Your task to perform on an android device: Open maps Image 0: 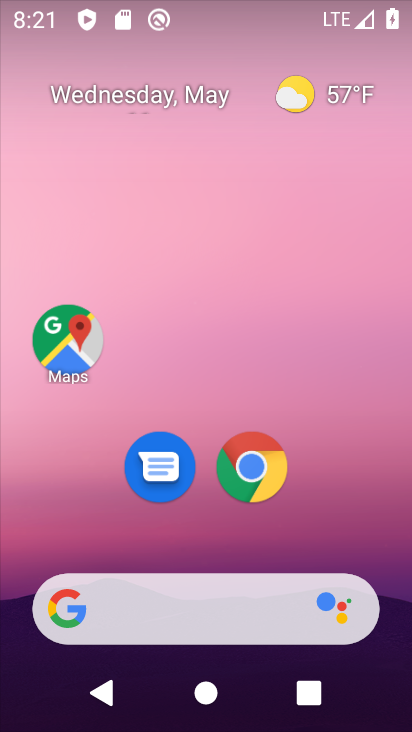
Step 0: drag from (276, 367) to (168, 145)
Your task to perform on an android device: Open maps Image 1: 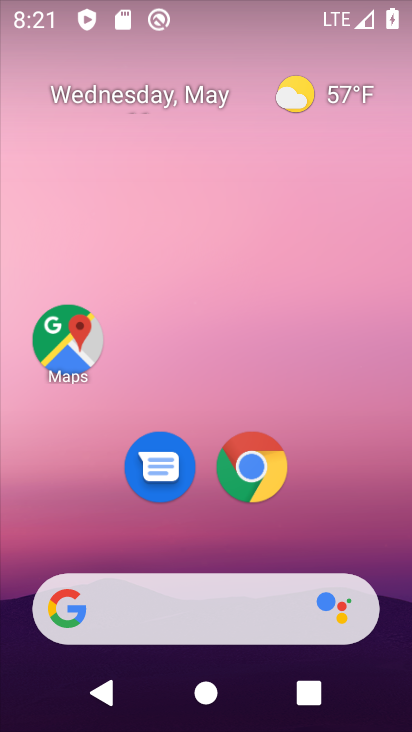
Step 1: drag from (342, 588) to (165, 147)
Your task to perform on an android device: Open maps Image 2: 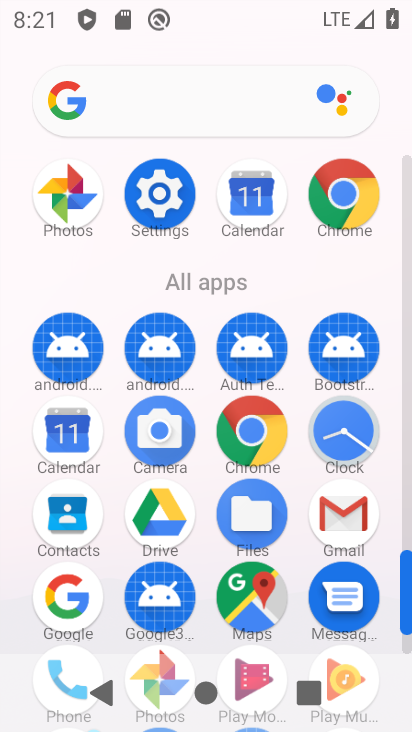
Step 2: click (230, 592)
Your task to perform on an android device: Open maps Image 3: 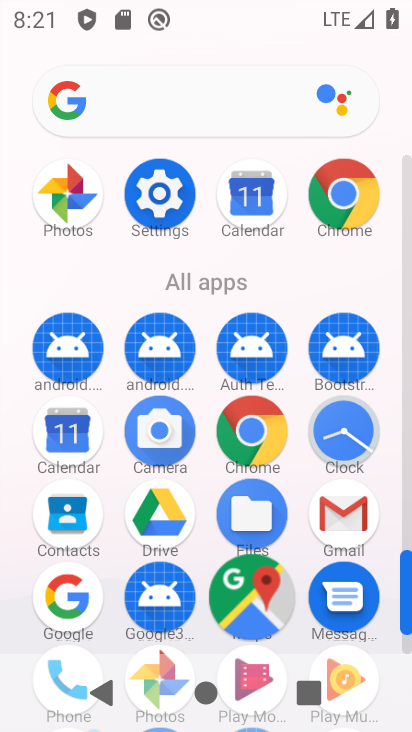
Step 3: click (239, 598)
Your task to perform on an android device: Open maps Image 4: 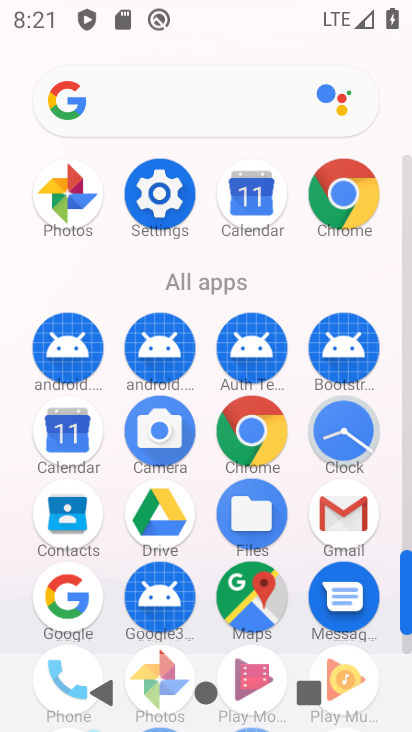
Step 4: click (243, 593)
Your task to perform on an android device: Open maps Image 5: 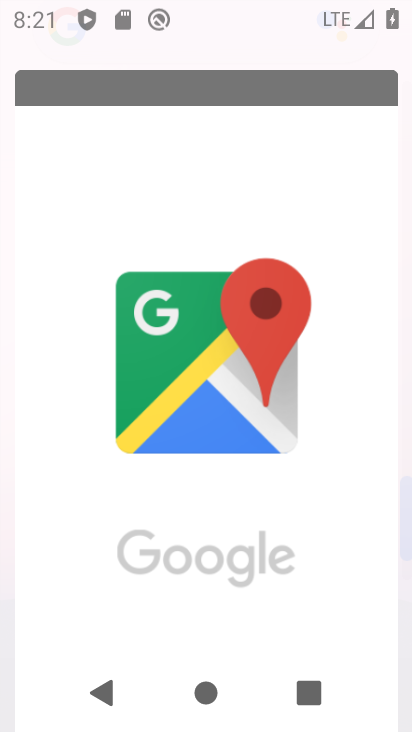
Step 5: click (250, 585)
Your task to perform on an android device: Open maps Image 6: 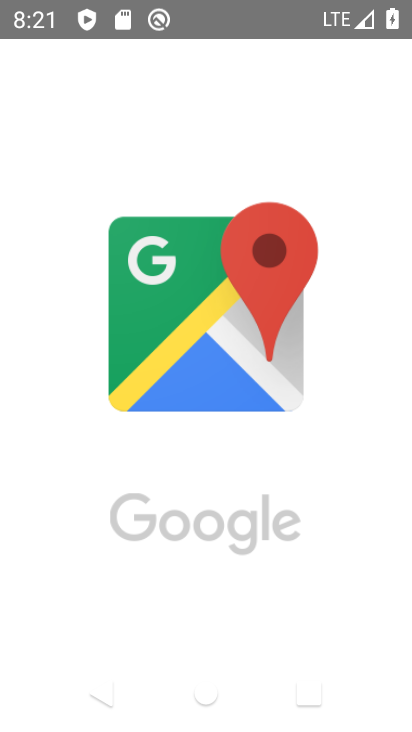
Step 6: click (250, 580)
Your task to perform on an android device: Open maps Image 7: 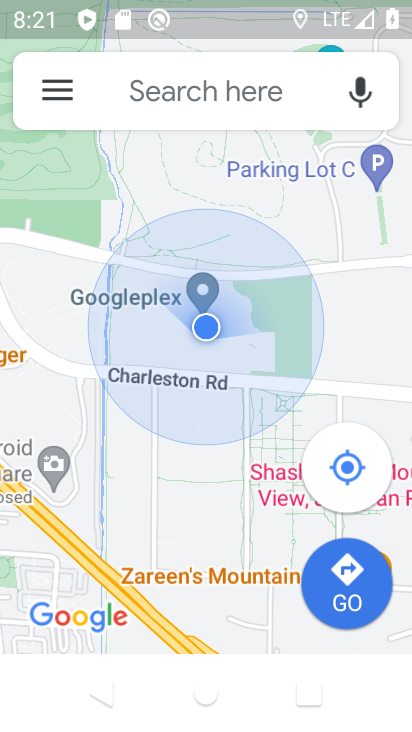
Step 7: click (131, 87)
Your task to perform on an android device: Open maps Image 8: 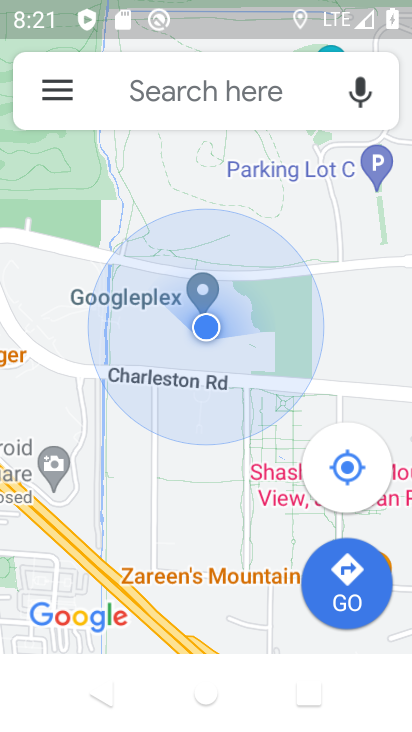
Step 8: click (131, 87)
Your task to perform on an android device: Open maps Image 9: 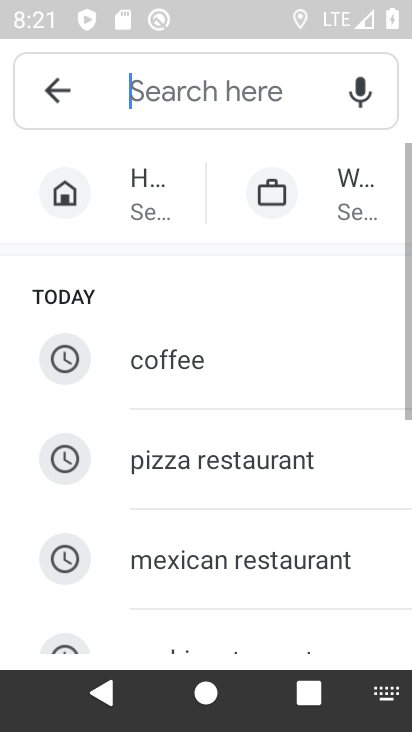
Step 9: click (136, 88)
Your task to perform on an android device: Open maps Image 10: 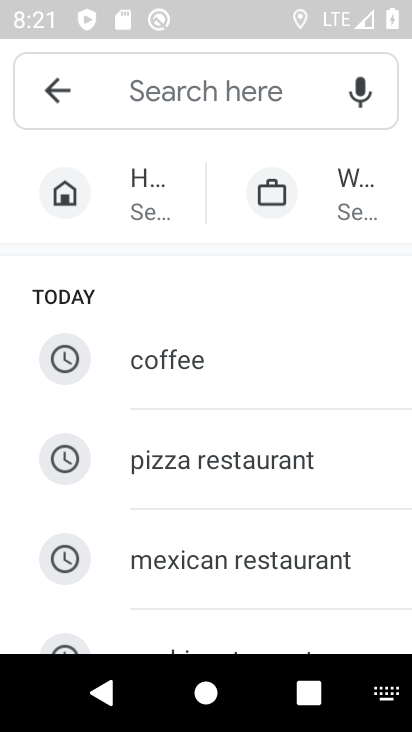
Step 10: click (60, 91)
Your task to perform on an android device: Open maps Image 11: 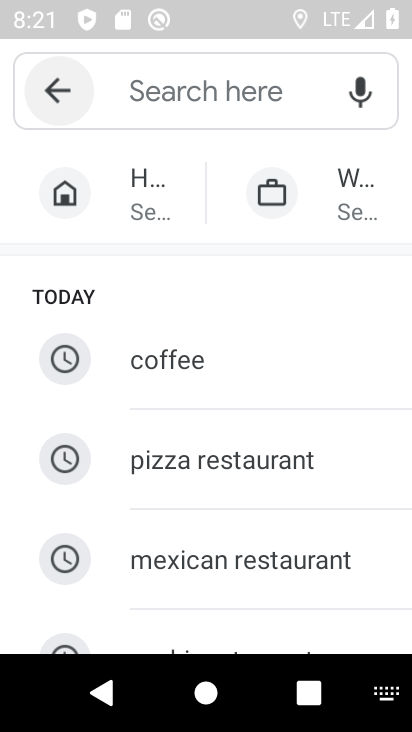
Step 11: click (59, 91)
Your task to perform on an android device: Open maps Image 12: 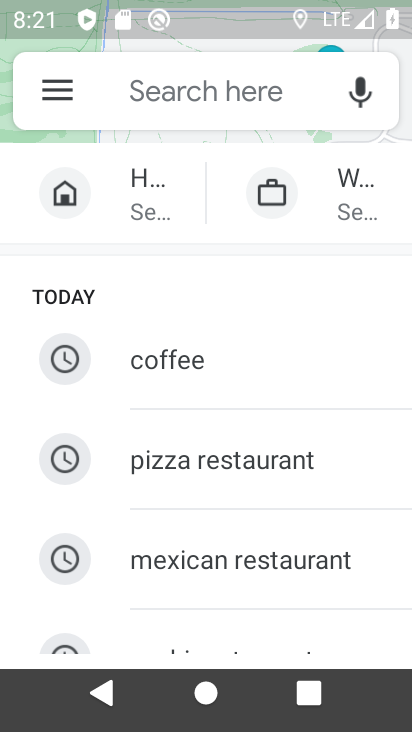
Step 12: click (57, 90)
Your task to perform on an android device: Open maps Image 13: 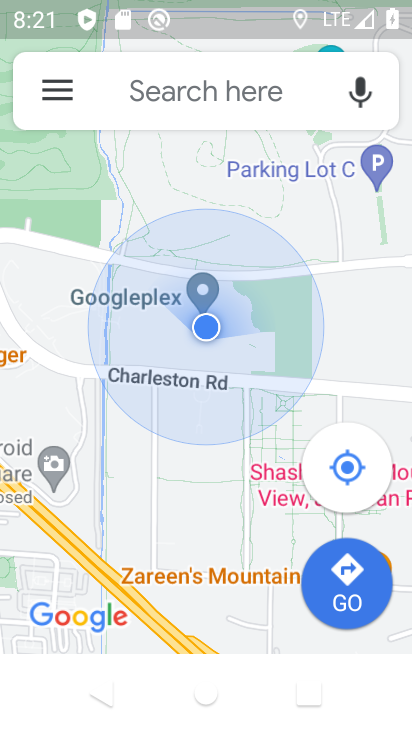
Step 13: click (57, 90)
Your task to perform on an android device: Open maps Image 14: 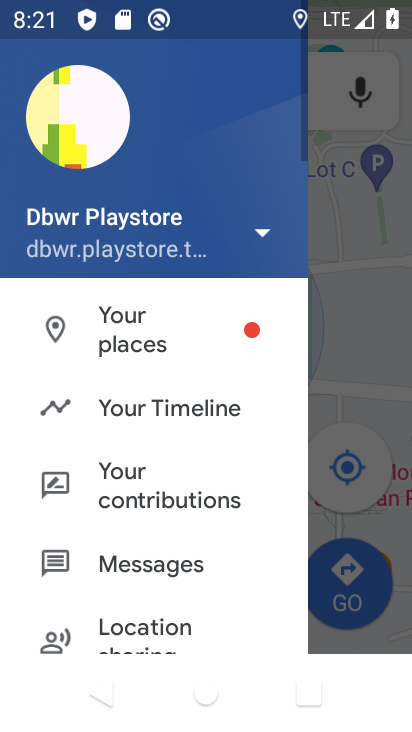
Step 14: drag from (188, 498) to (119, 38)
Your task to perform on an android device: Open maps Image 15: 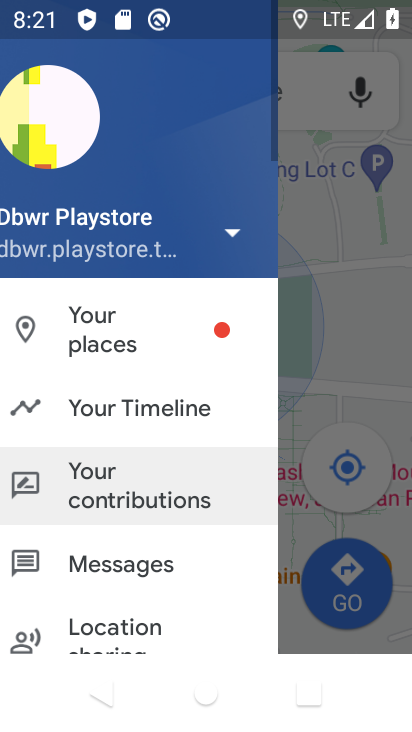
Step 15: drag from (245, 345) to (245, 128)
Your task to perform on an android device: Open maps Image 16: 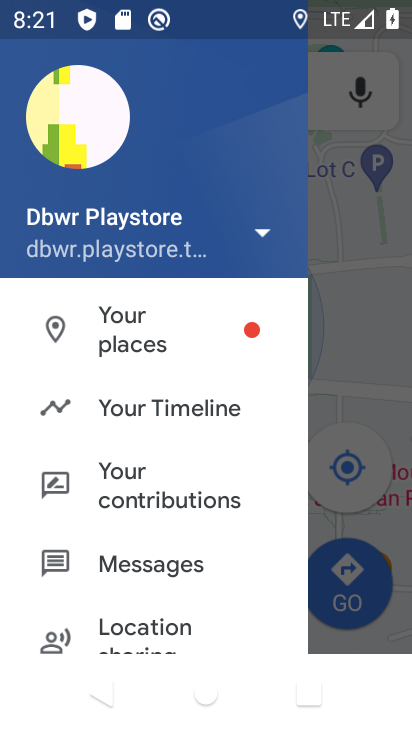
Step 16: click (328, 355)
Your task to perform on an android device: Open maps Image 17: 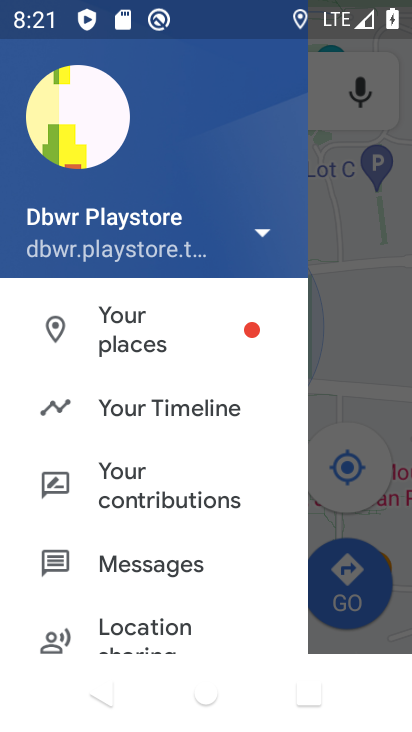
Step 17: click (336, 337)
Your task to perform on an android device: Open maps Image 18: 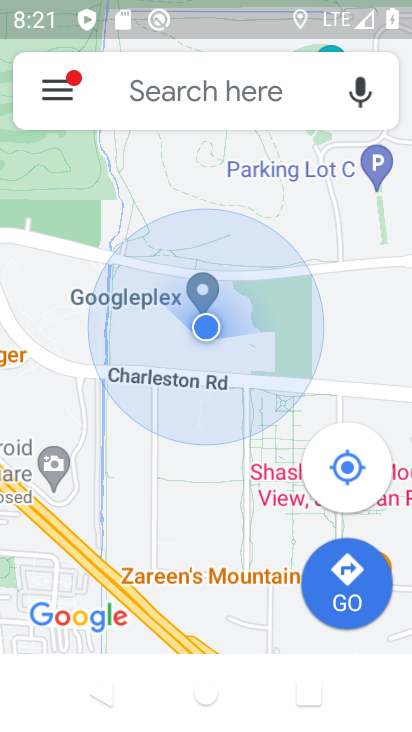
Step 18: task complete